Your task to perform on an android device: Search for Mexican restaurants on Maps Image 0: 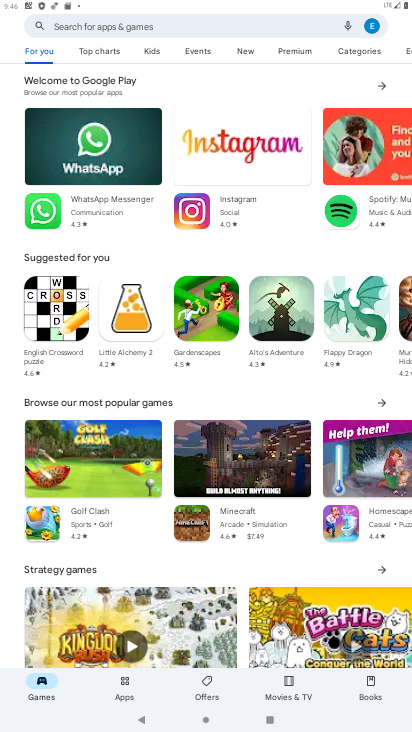
Step 0: press home button
Your task to perform on an android device: Search for Mexican restaurants on Maps Image 1: 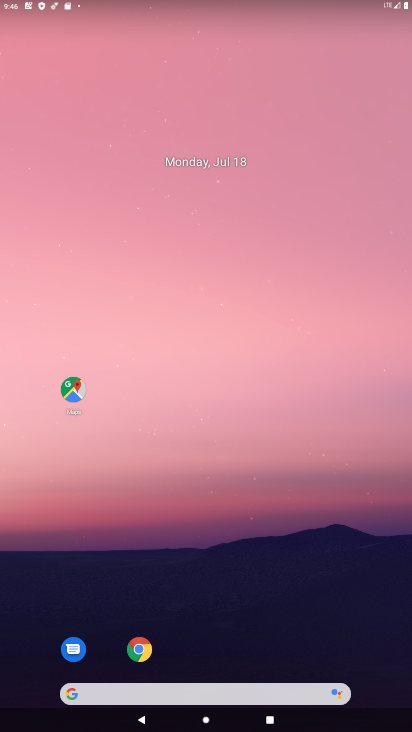
Step 1: click (70, 380)
Your task to perform on an android device: Search for Mexican restaurants on Maps Image 2: 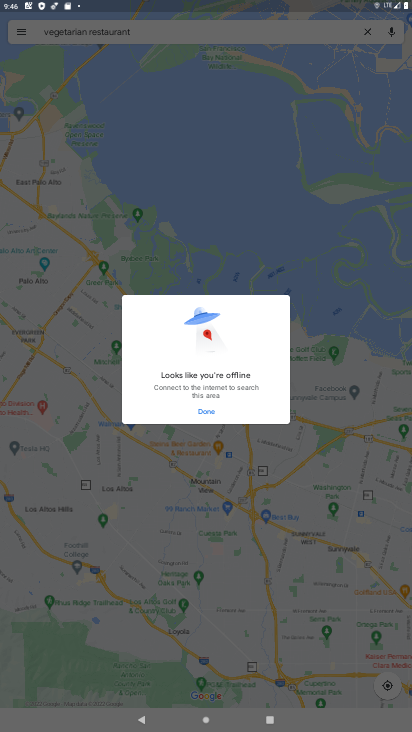
Step 2: click (212, 414)
Your task to perform on an android device: Search for Mexican restaurants on Maps Image 3: 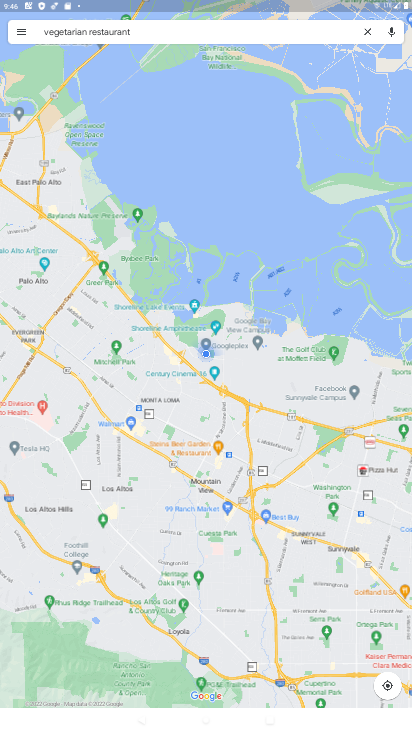
Step 3: click (173, 32)
Your task to perform on an android device: Search for Mexican restaurants on Maps Image 4: 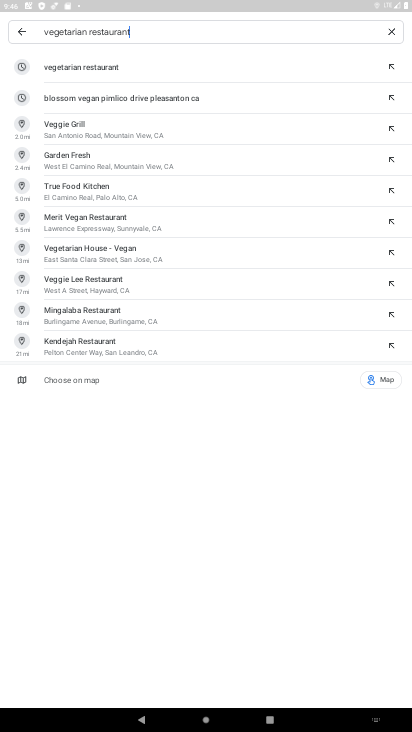
Step 4: click (392, 29)
Your task to perform on an android device: Search for Mexican restaurants on Maps Image 5: 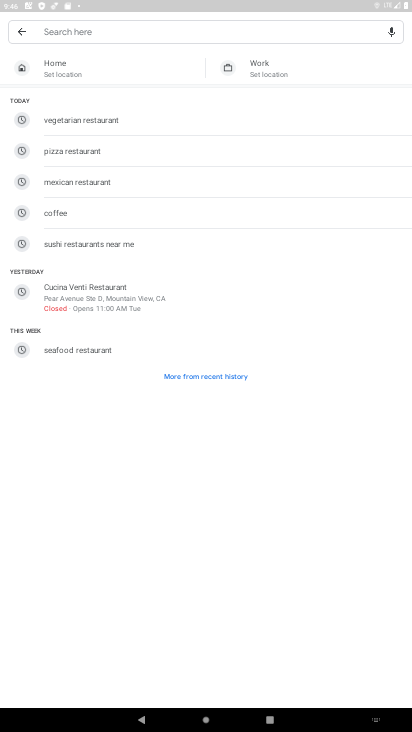
Step 5: click (133, 187)
Your task to perform on an android device: Search for Mexican restaurants on Maps Image 6: 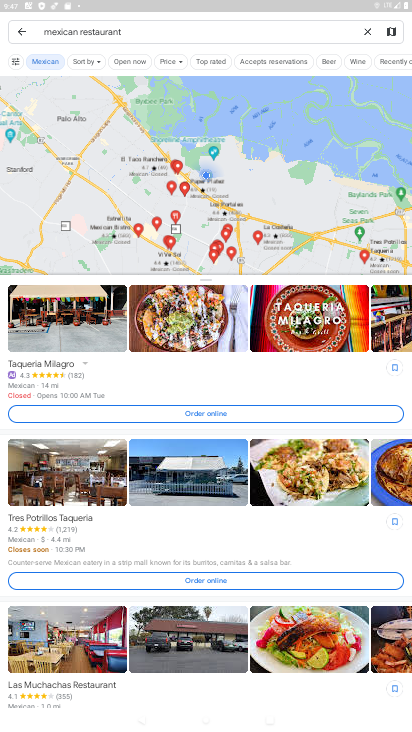
Step 6: task complete